Your task to perform on an android device: open a bookmark in the chrome app Image 0: 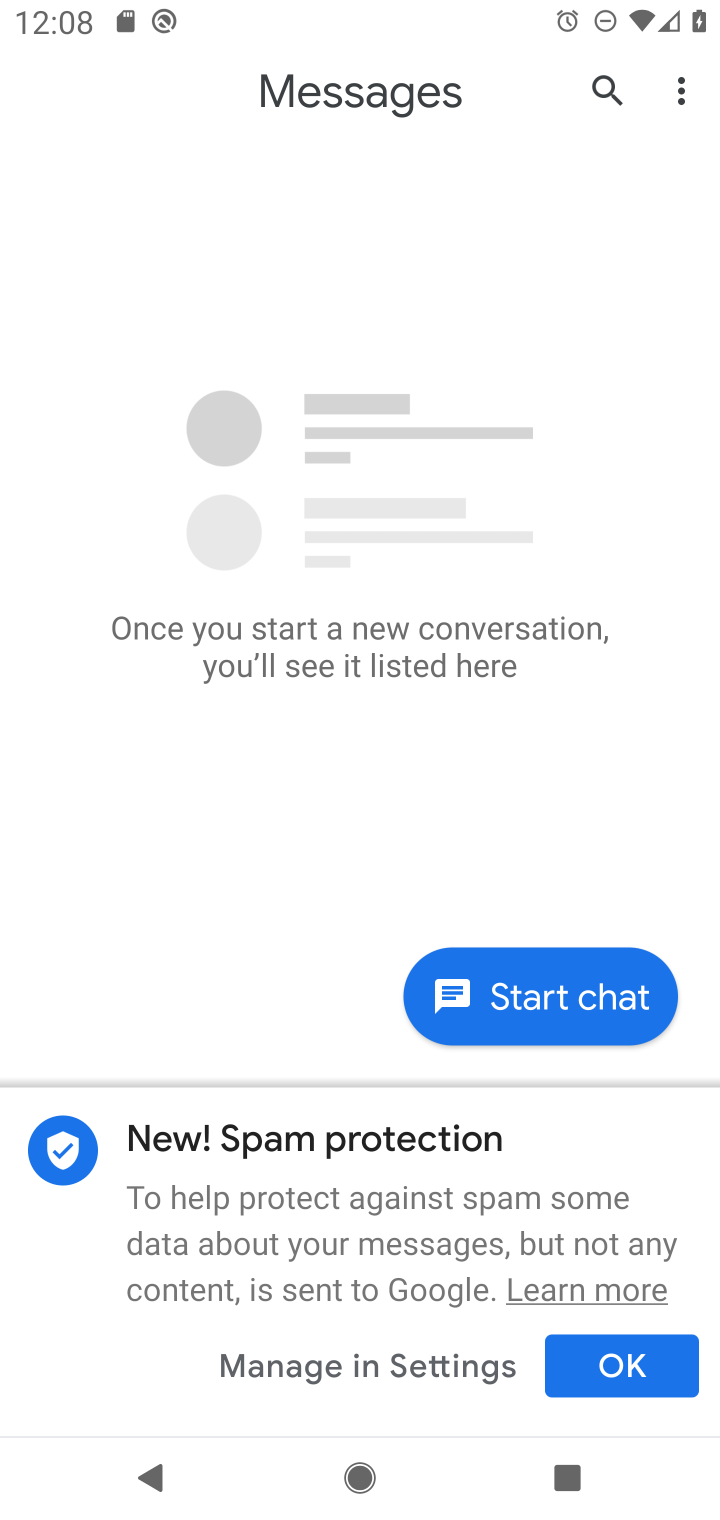
Step 0: press home button
Your task to perform on an android device: open a bookmark in the chrome app Image 1: 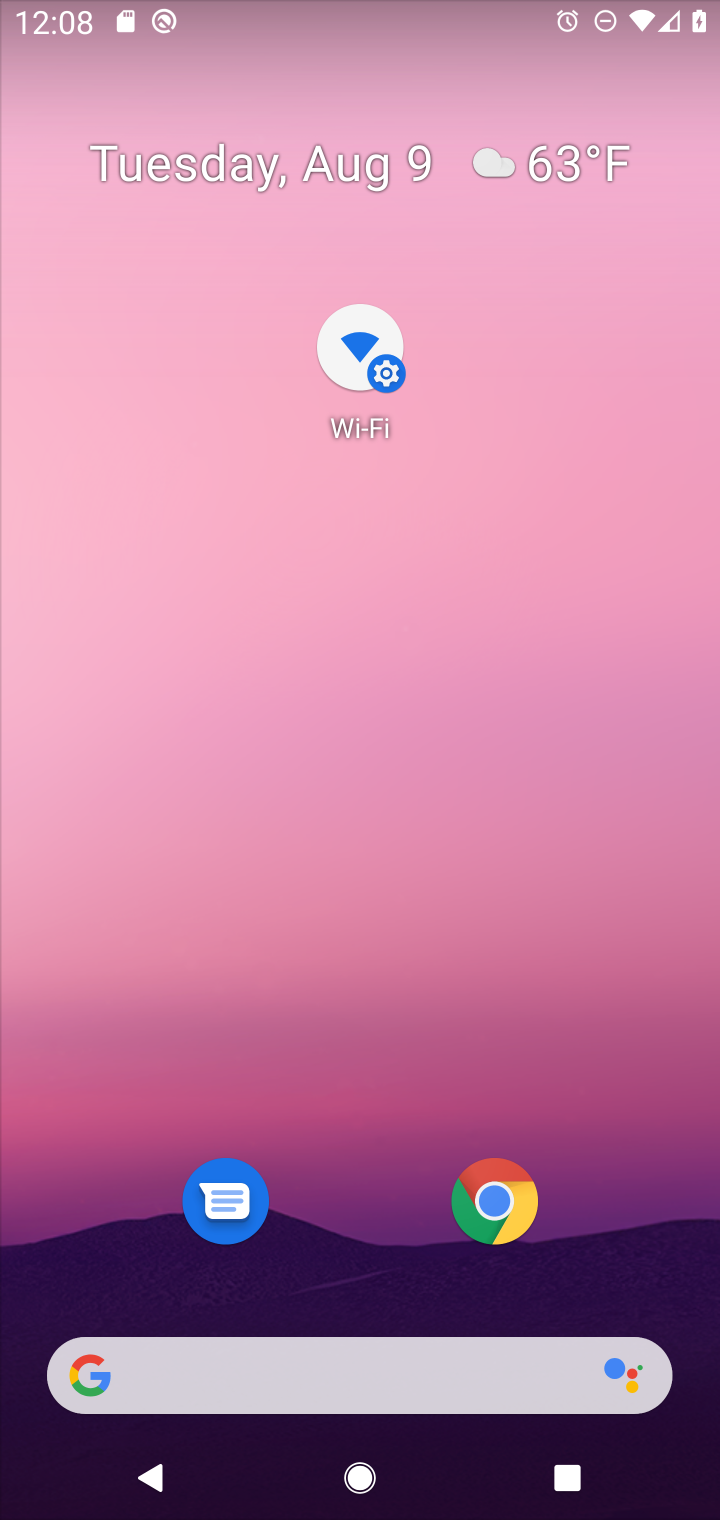
Step 1: drag from (367, 1233) to (528, 218)
Your task to perform on an android device: open a bookmark in the chrome app Image 2: 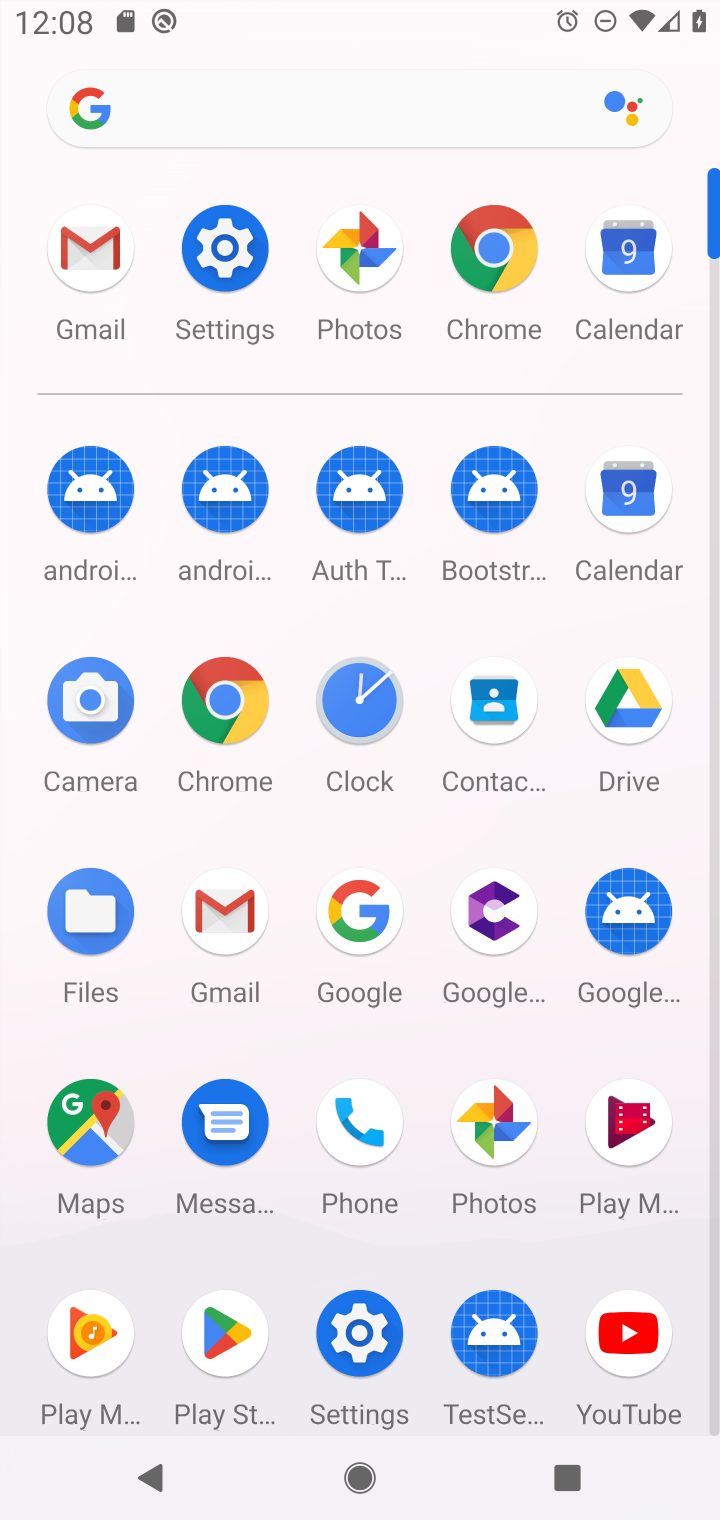
Step 2: click (221, 701)
Your task to perform on an android device: open a bookmark in the chrome app Image 3: 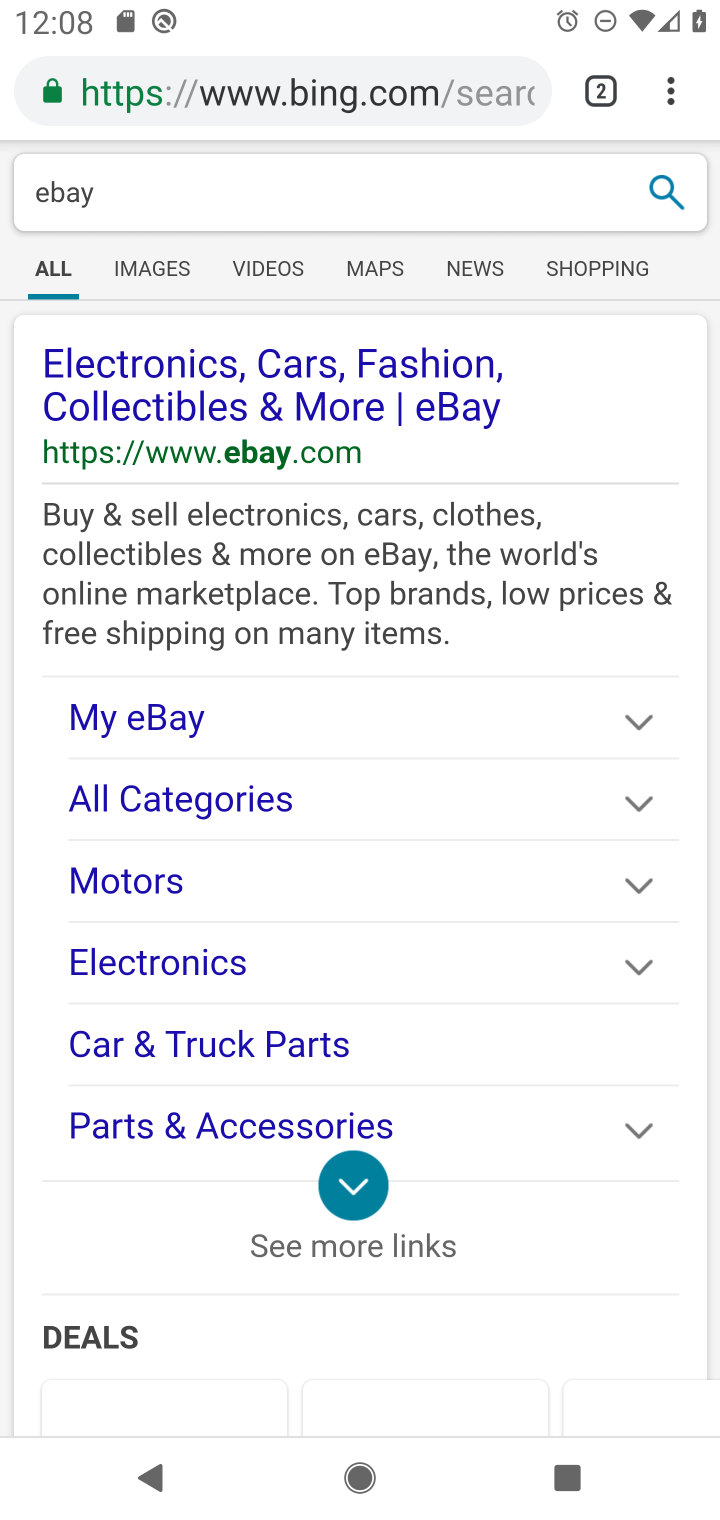
Step 3: click (673, 90)
Your task to perform on an android device: open a bookmark in the chrome app Image 4: 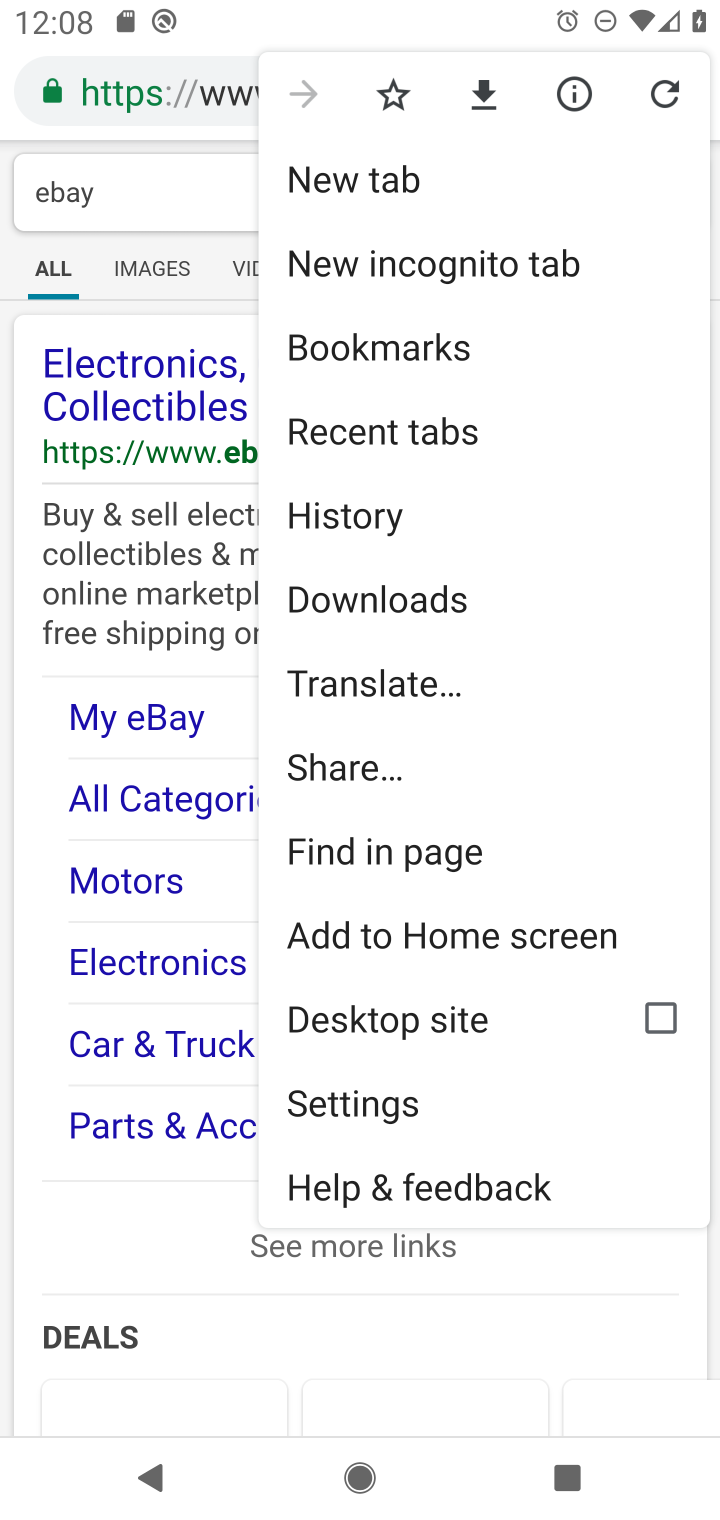
Step 4: click (445, 342)
Your task to perform on an android device: open a bookmark in the chrome app Image 5: 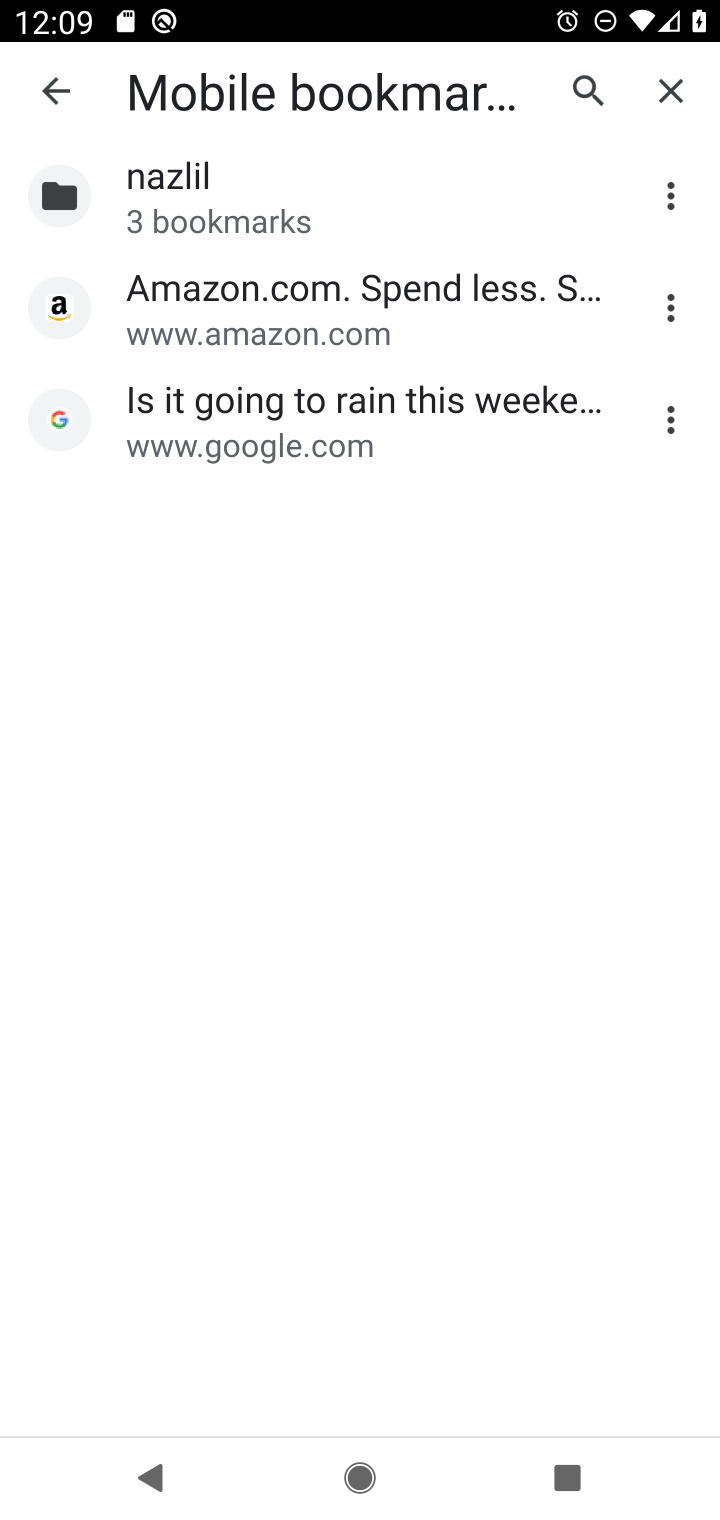
Step 5: click (308, 299)
Your task to perform on an android device: open a bookmark in the chrome app Image 6: 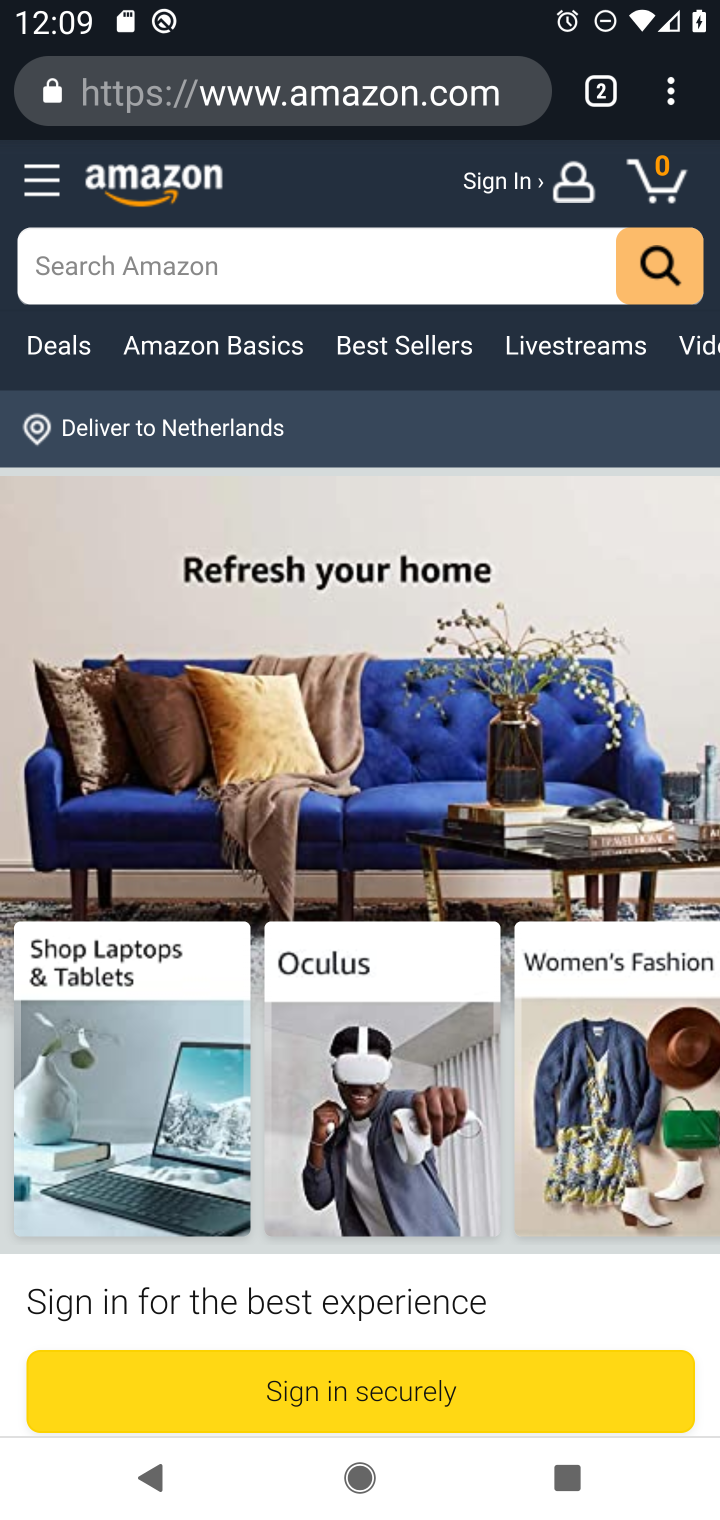
Step 6: task complete